Your task to perform on an android device: check out phone information Image 0: 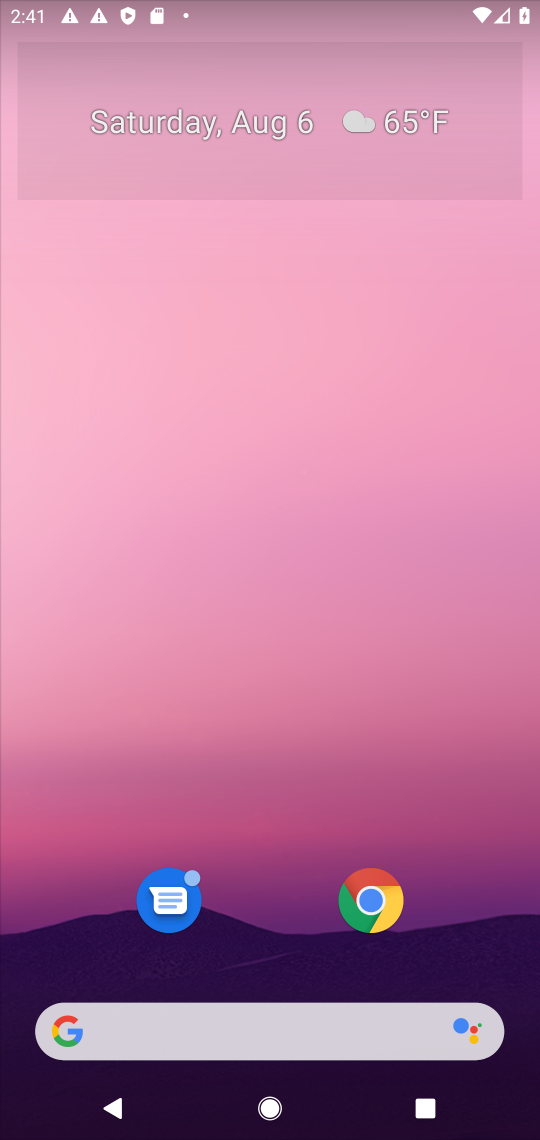
Step 0: press home button
Your task to perform on an android device: check out phone information Image 1: 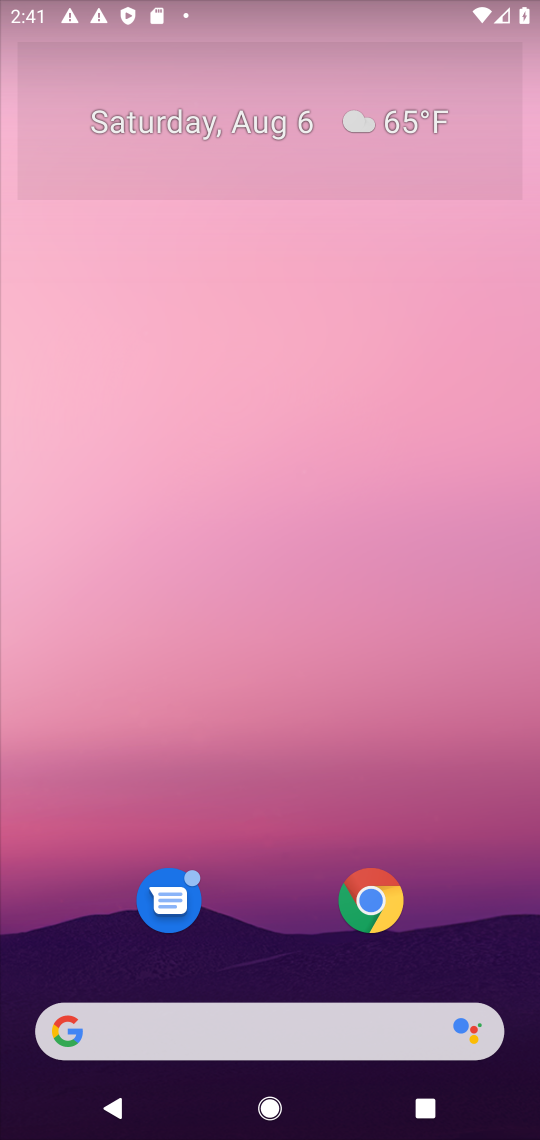
Step 1: drag from (275, 900) to (311, 229)
Your task to perform on an android device: check out phone information Image 2: 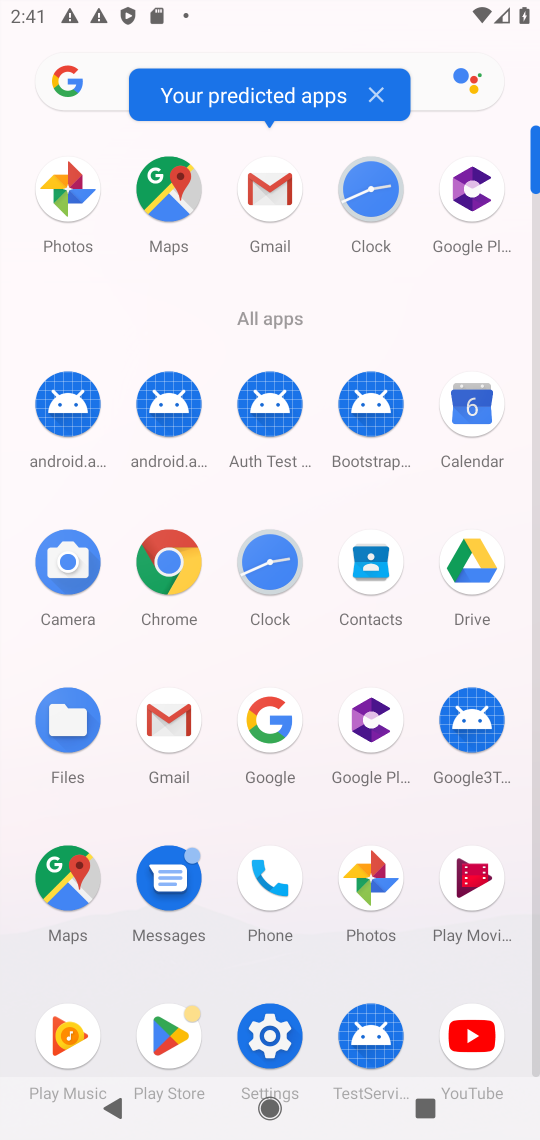
Step 2: click (259, 1040)
Your task to perform on an android device: check out phone information Image 3: 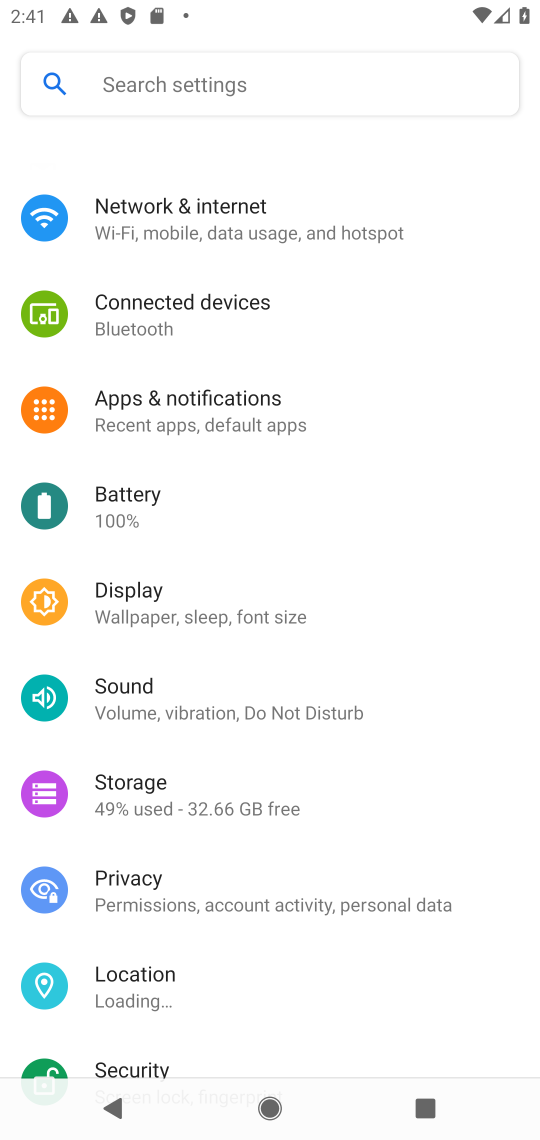
Step 3: drag from (242, 1010) to (257, 229)
Your task to perform on an android device: check out phone information Image 4: 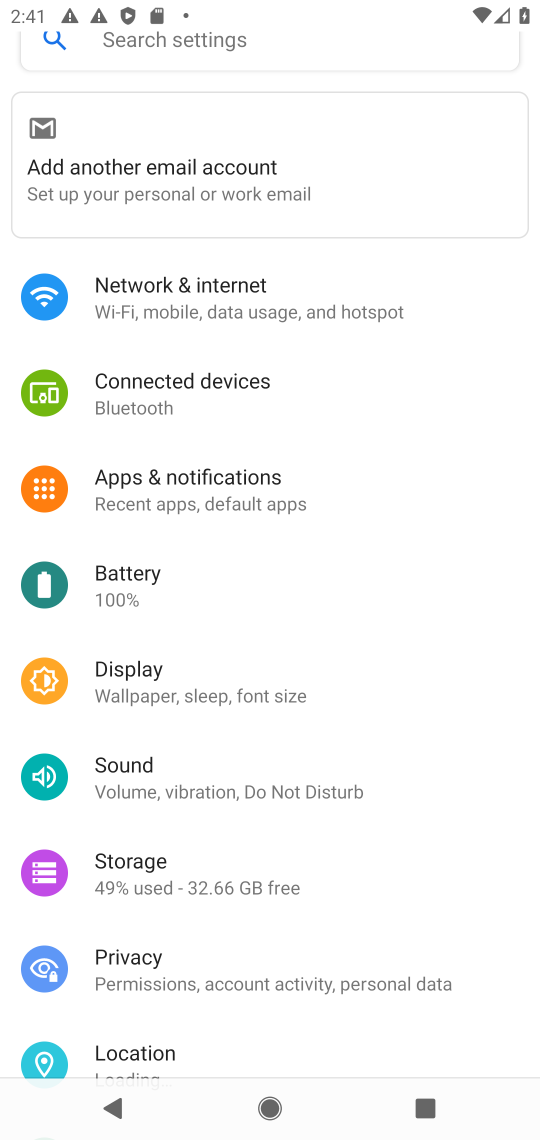
Step 4: drag from (204, 1053) to (225, 357)
Your task to perform on an android device: check out phone information Image 5: 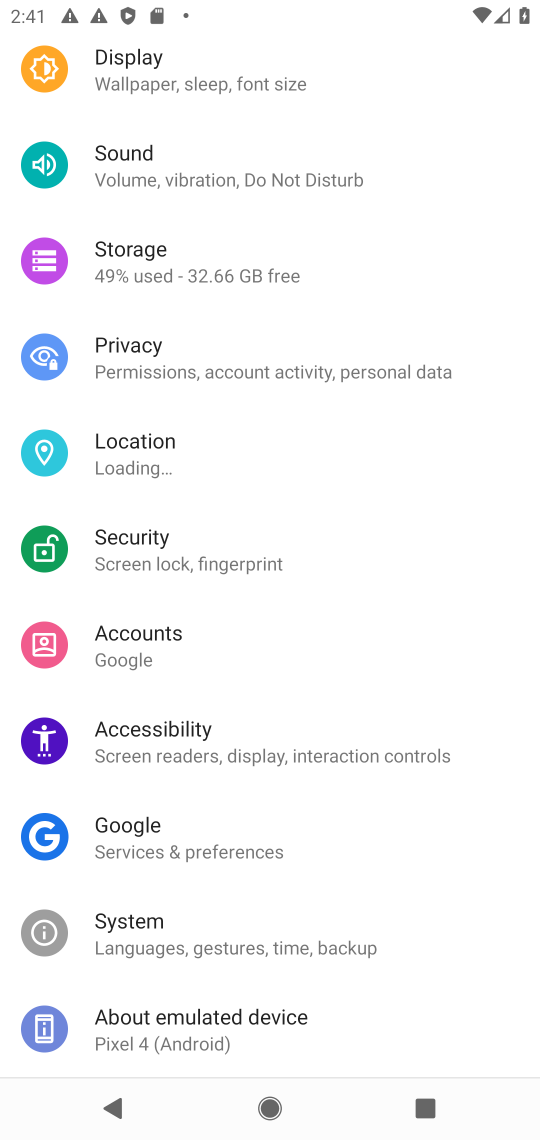
Step 5: click (272, 1025)
Your task to perform on an android device: check out phone information Image 6: 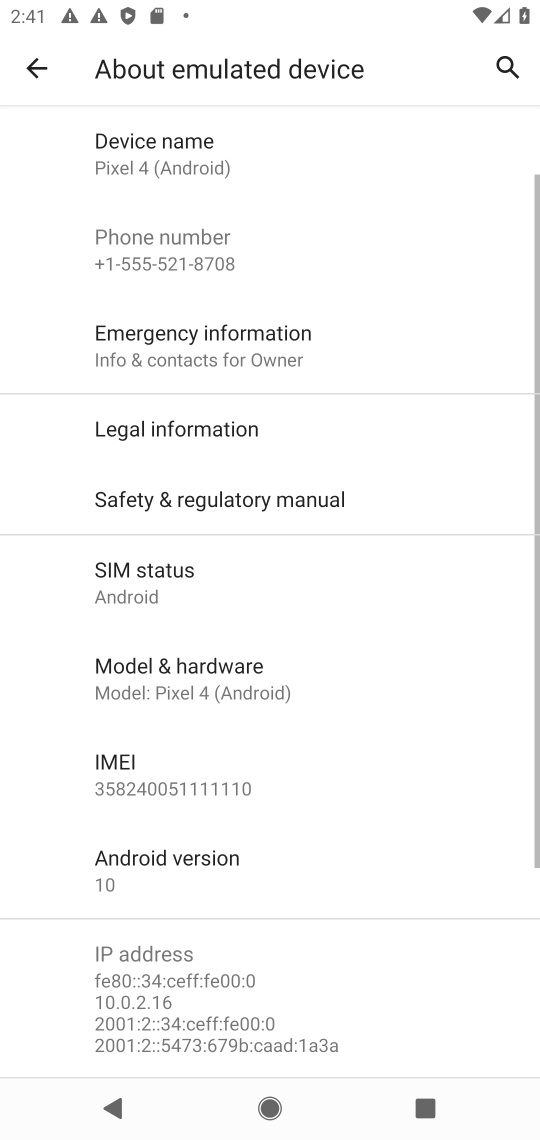
Step 6: task complete